Your task to perform on an android device: What is the recent news? Image 0: 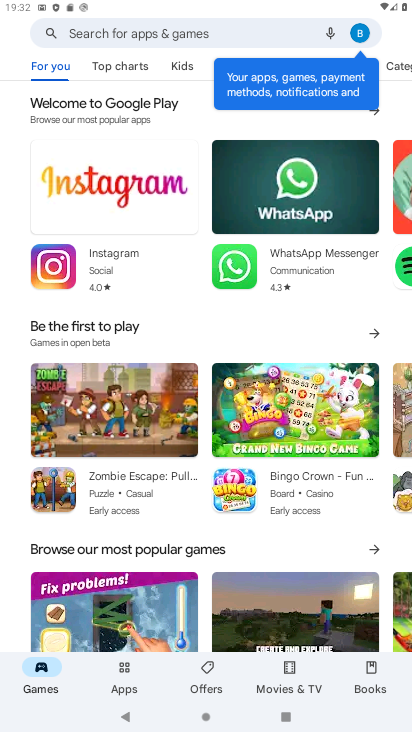
Step 0: press home button
Your task to perform on an android device: What is the recent news? Image 1: 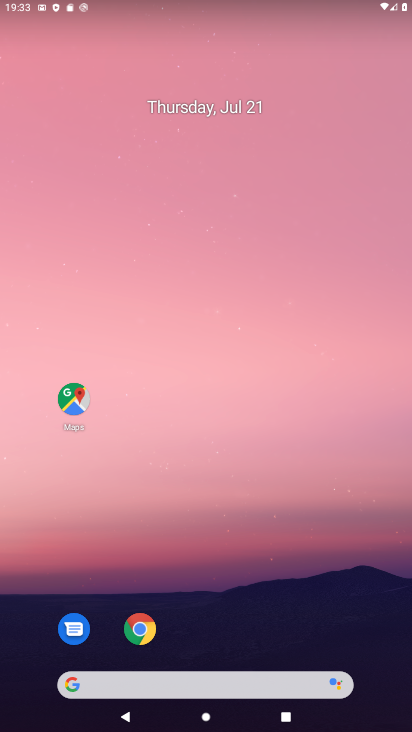
Step 1: click (144, 681)
Your task to perform on an android device: What is the recent news? Image 2: 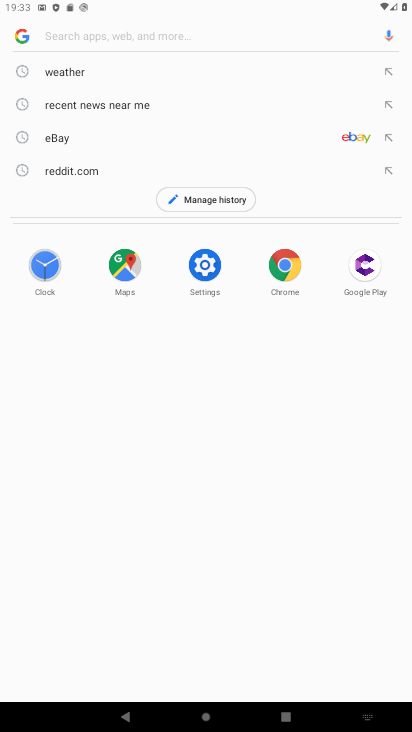
Step 2: click (144, 38)
Your task to perform on an android device: What is the recent news? Image 3: 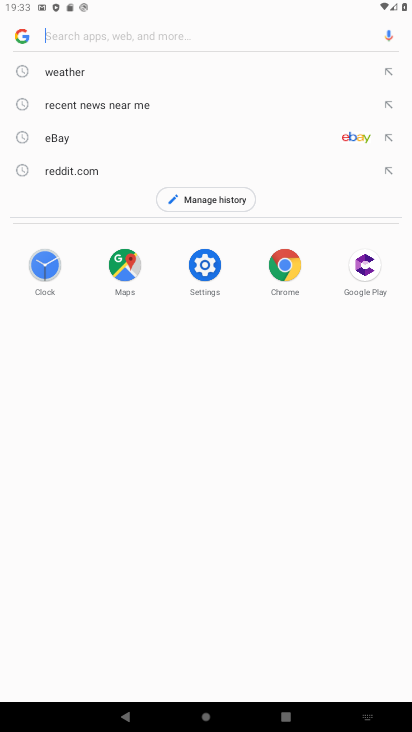
Step 3: type "recent news"
Your task to perform on an android device: What is the recent news? Image 4: 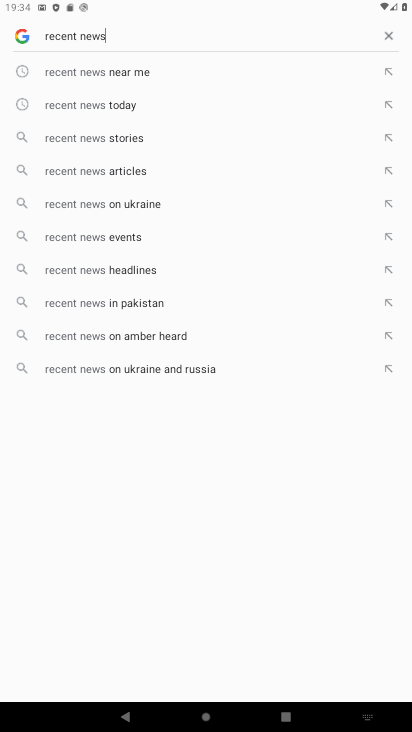
Step 4: click (130, 111)
Your task to perform on an android device: What is the recent news? Image 5: 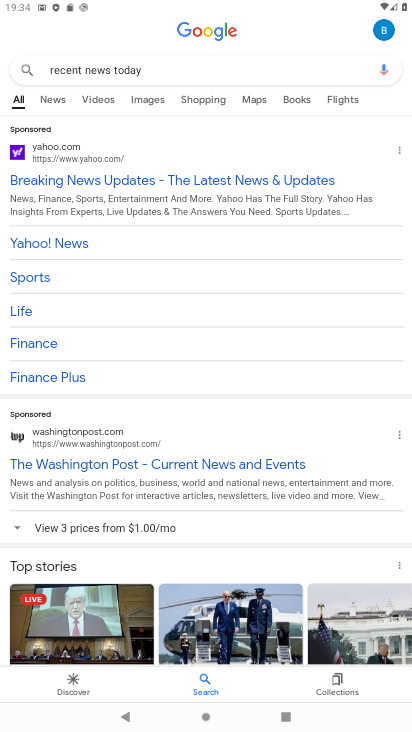
Step 5: task complete